Your task to perform on an android device: turn on sleep mode Image 0: 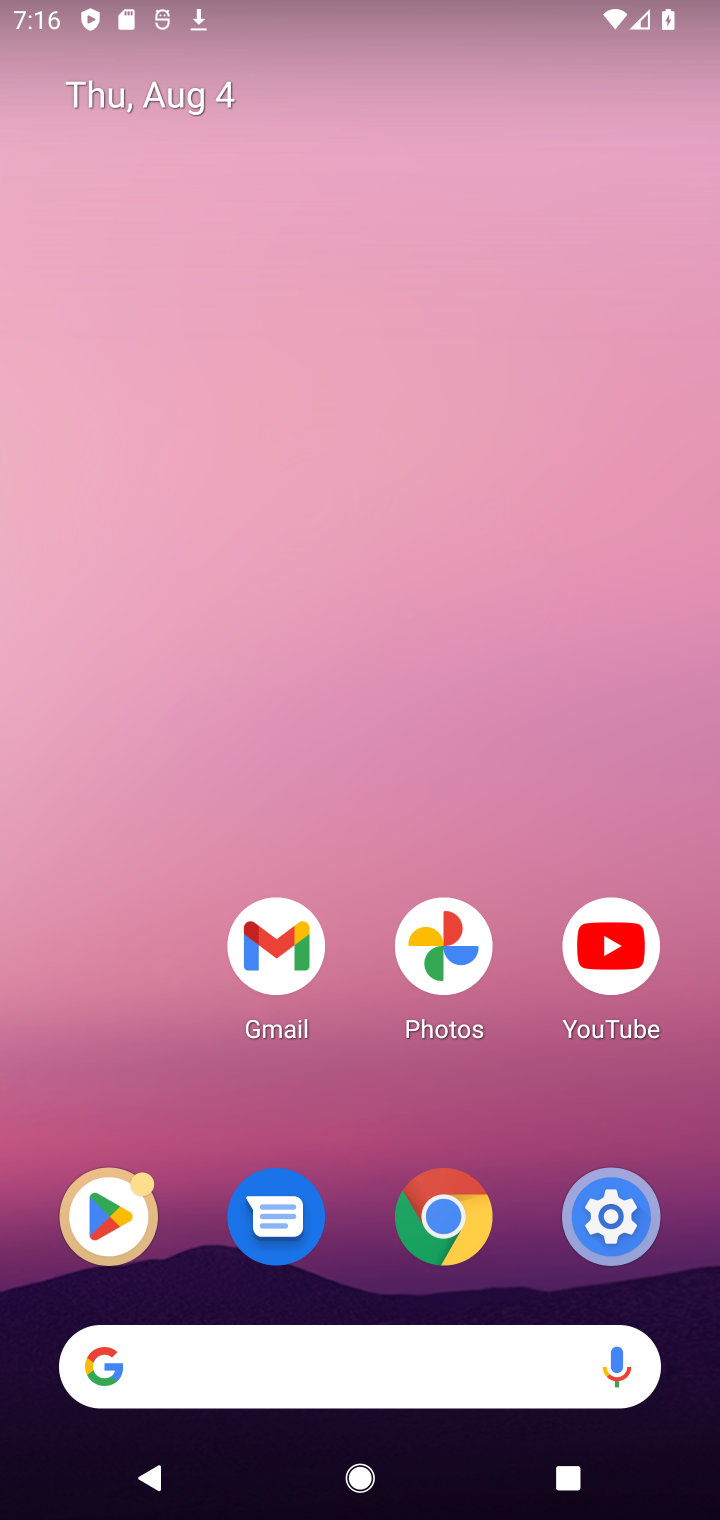
Step 0: click (627, 1223)
Your task to perform on an android device: turn on sleep mode Image 1: 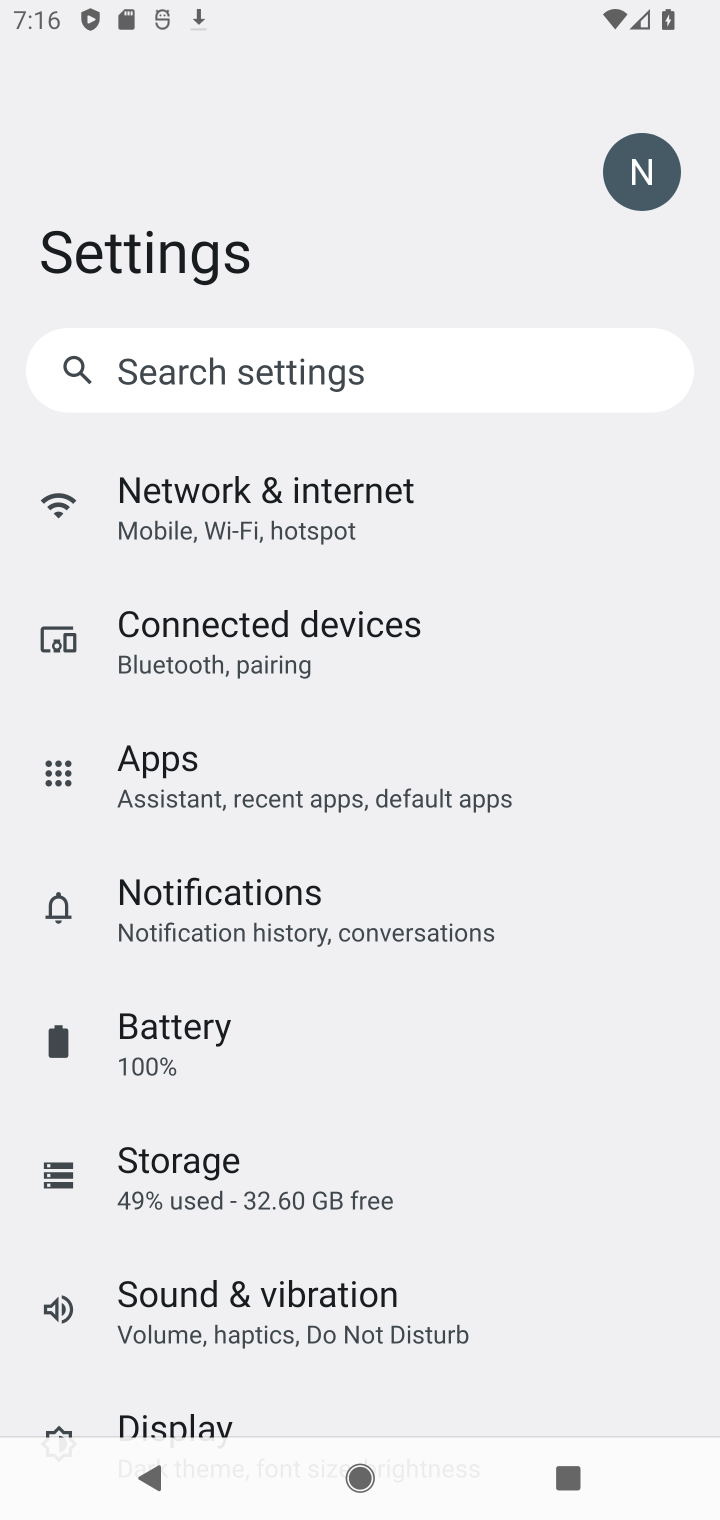
Step 1: drag from (351, 1359) to (351, 726)
Your task to perform on an android device: turn on sleep mode Image 2: 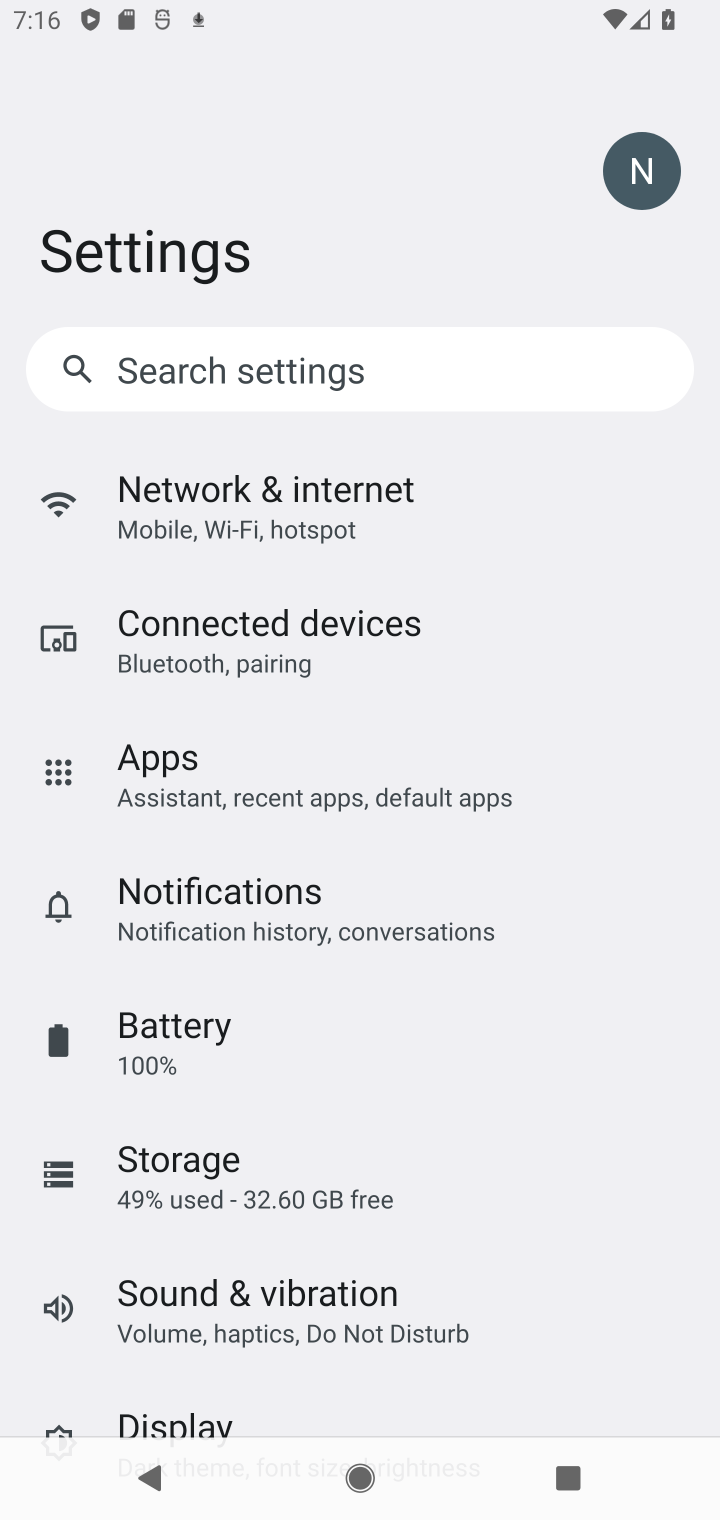
Step 2: drag from (307, 1347) to (282, 629)
Your task to perform on an android device: turn on sleep mode Image 3: 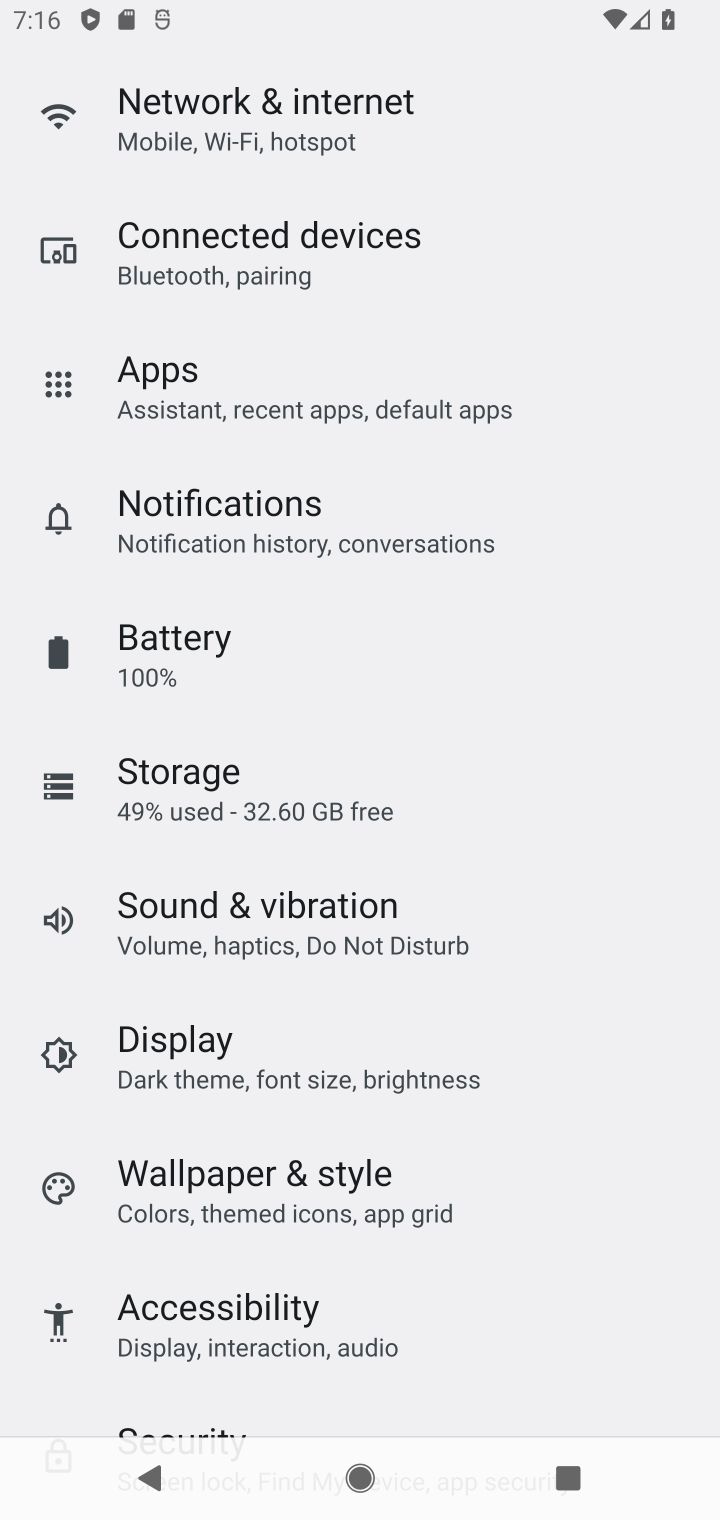
Step 3: click (260, 1084)
Your task to perform on an android device: turn on sleep mode Image 4: 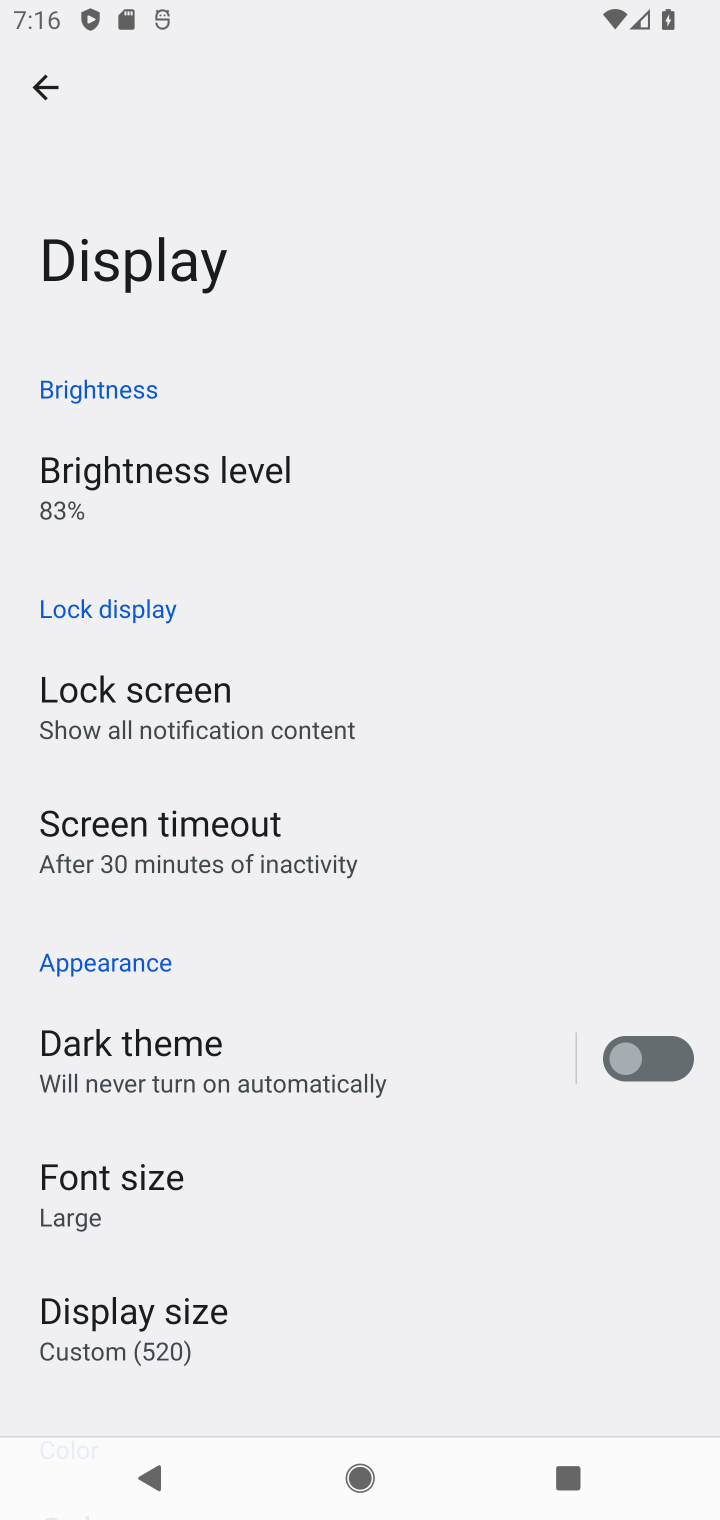
Step 4: task complete